Your task to perform on an android device: Open ESPN.com Image 0: 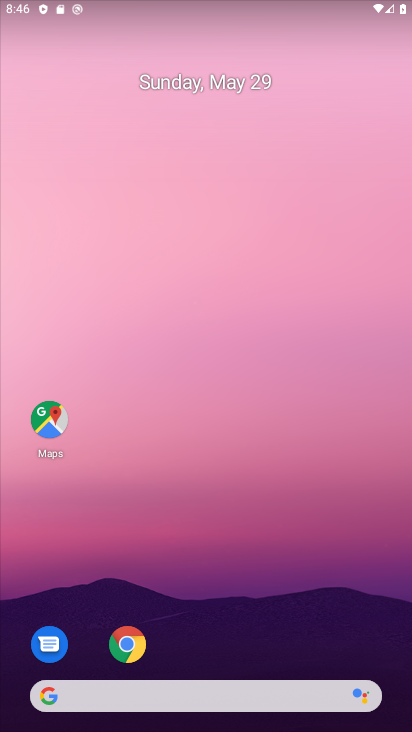
Step 0: click (127, 648)
Your task to perform on an android device: Open ESPN.com Image 1: 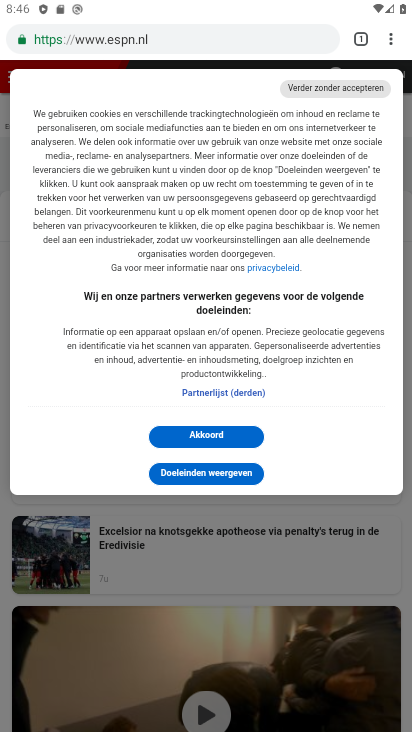
Step 1: click (229, 429)
Your task to perform on an android device: Open ESPN.com Image 2: 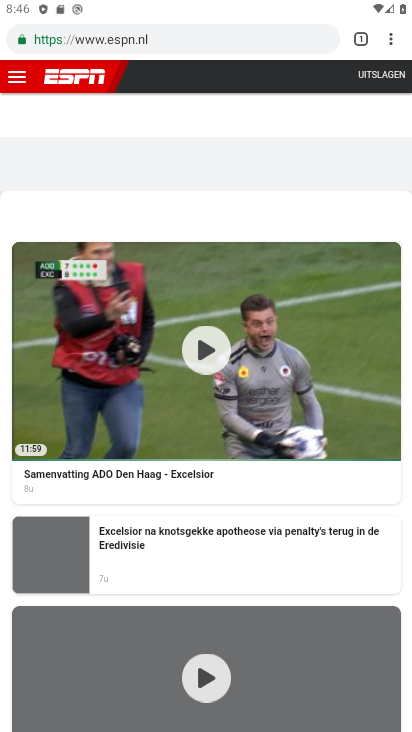
Step 2: task complete